Your task to perform on an android device: Clear the cart on ebay. Add "jbl flip 4" to the cart on ebay Image 0: 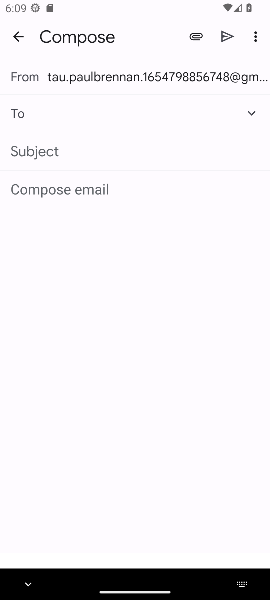
Step 0: press home button
Your task to perform on an android device: Clear the cart on ebay. Add "jbl flip 4" to the cart on ebay Image 1: 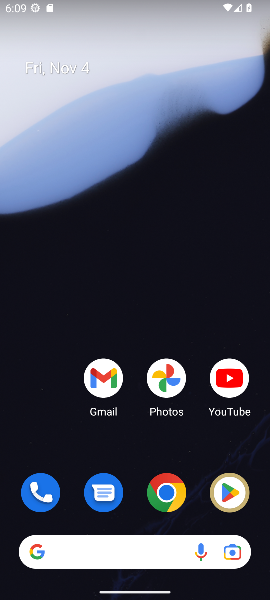
Step 1: drag from (128, 441) to (122, 28)
Your task to perform on an android device: Clear the cart on ebay. Add "jbl flip 4" to the cart on ebay Image 2: 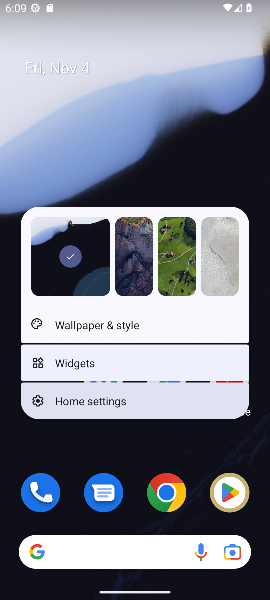
Step 2: click (153, 105)
Your task to perform on an android device: Clear the cart on ebay. Add "jbl flip 4" to the cart on ebay Image 3: 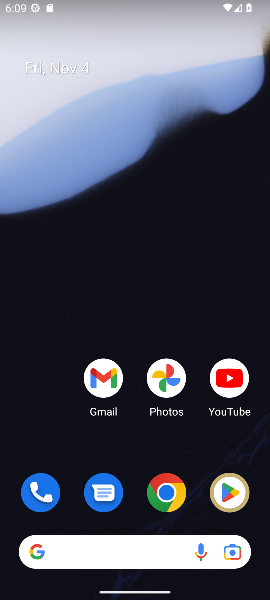
Step 3: drag from (136, 463) to (152, 96)
Your task to perform on an android device: Clear the cart on ebay. Add "jbl flip 4" to the cart on ebay Image 4: 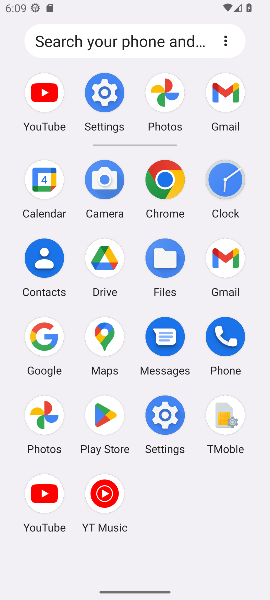
Step 4: click (160, 180)
Your task to perform on an android device: Clear the cart on ebay. Add "jbl flip 4" to the cart on ebay Image 5: 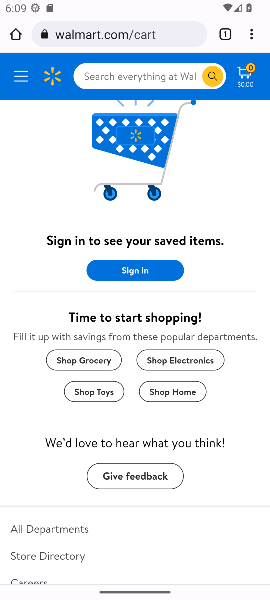
Step 5: click (105, 39)
Your task to perform on an android device: Clear the cart on ebay. Add "jbl flip 4" to the cart on ebay Image 6: 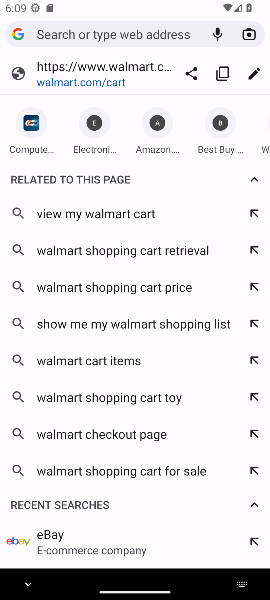
Step 6: type "ebay.com"
Your task to perform on an android device: Clear the cart on ebay. Add "jbl flip 4" to the cart on ebay Image 7: 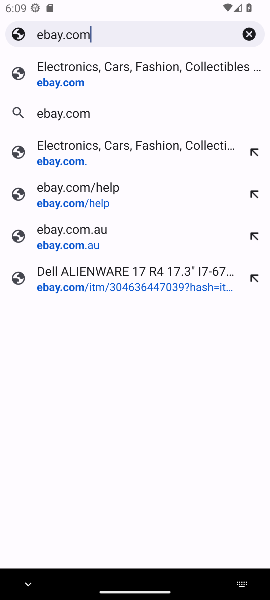
Step 7: press enter
Your task to perform on an android device: Clear the cart on ebay. Add "jbl flip 4" to the cart on ebay Image 8: 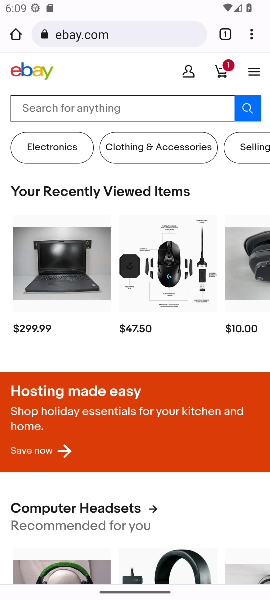
Step 8: click (228, 67)
Your task to perform on an android device: Clear the cart on ebay. Add "jbl flip 4" to the cart on ebay Image 9: 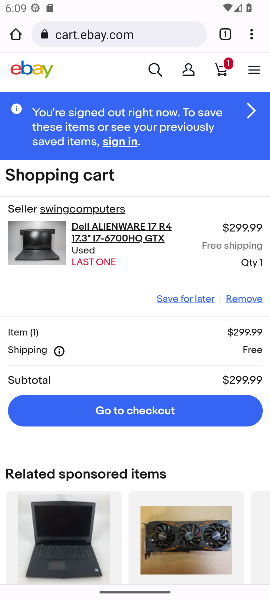
Step 9: click (250, 295)
Your task to perform on an android device: Clear the cart on ebay. Add "jbl flip 4" to the cart on ebay Image 10: 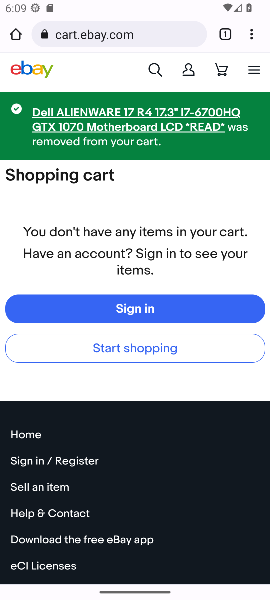
Step 10: click (161, 69)
Your task to perform on an android device: Clear the cart on ebay. Add "jbl flip 4" to the cart on ebay Image 11: 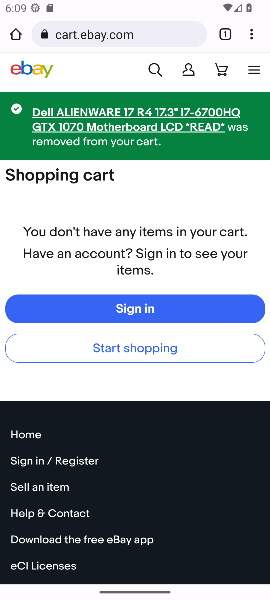
Step 11: click (134, 355)
Your task to perform on an android device: Clear the cart on ebay. Add "jbl flip 4" to the cart on ebay Image 12: 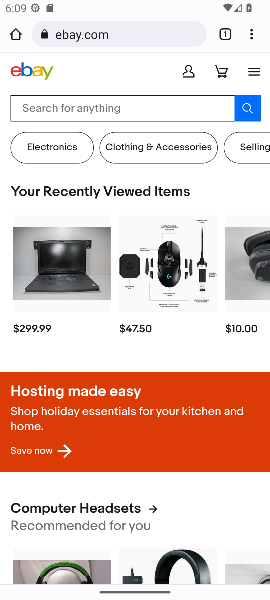
Step 12: click (172, 102)
Your task to perform on an android device: Clear the cart on ebay. Add "jbl flip 4" to the cart on ebay Image 13: 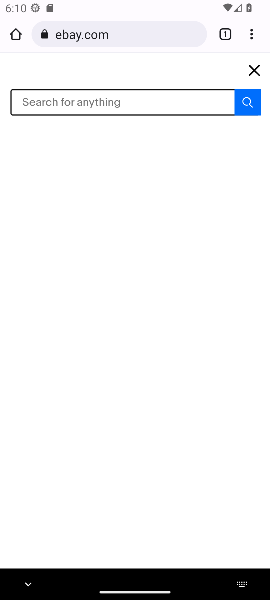
Step 13: type "jbl flip 4"
Your task to perform on an android device: Clear the cart on ebay. Add "jbl flip 4" to the cart on ebay Image 14: 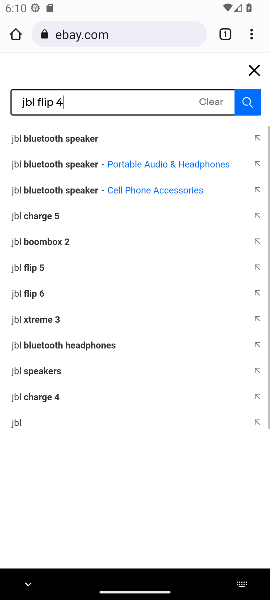
Step 14: press enter
Your task to perform on an android device: Clear the cart on ebay. Add "jbl flip 4" to the cart on ebay Image 15: 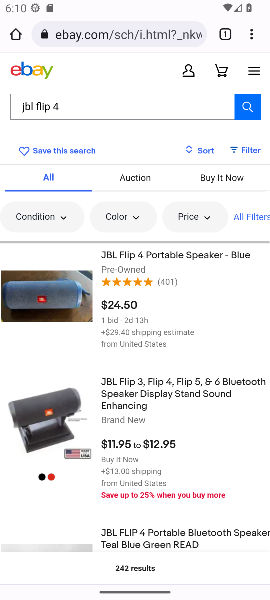
Step 15: click (45, 280)
Your task to perform on an android device: Clear the cart on ebay. Add "jbl flip 4" to the cart on ebay Image 16: 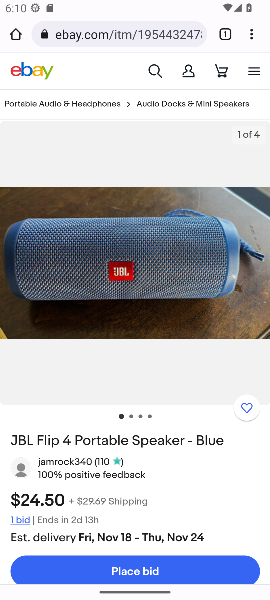
Step 16: task complete